Your task to perform on an android device: Show me recent news Image 0: 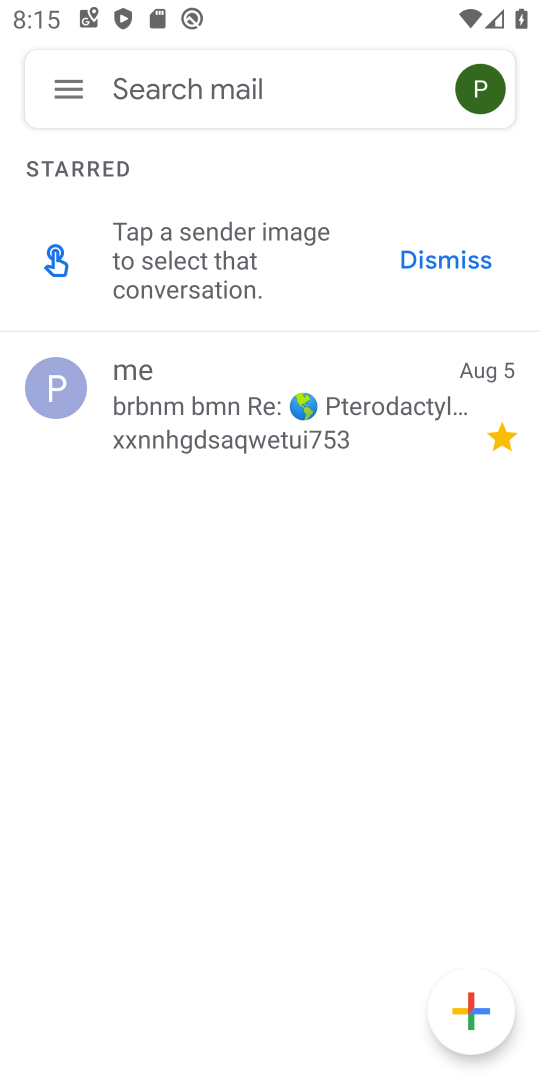
Step 0: press home button
Your task to perform on an android device: Show me recent news Image 1: 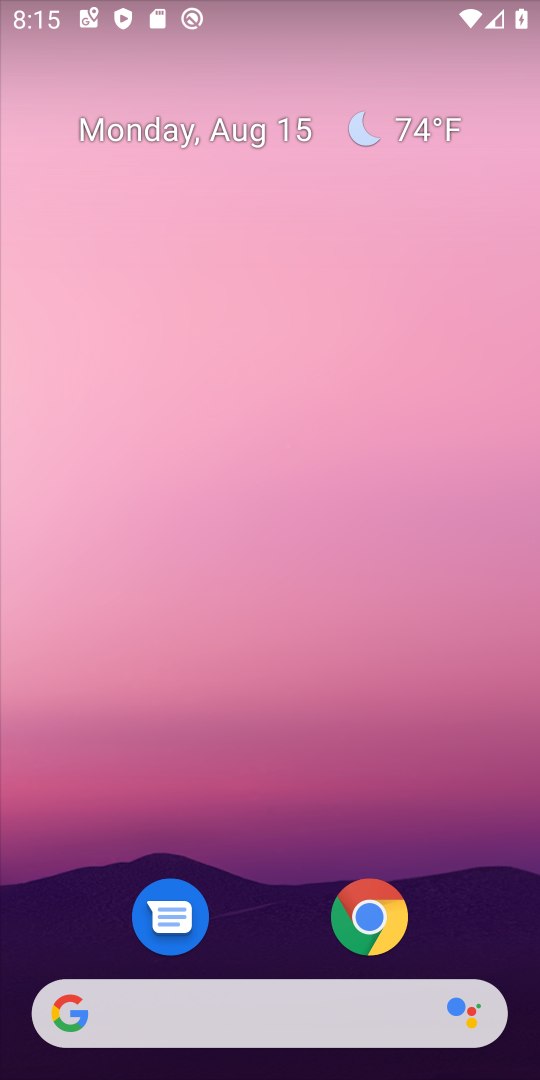
Step 1: click (354, 1009)
Your task to perform on an android device: Show me recent news Image 2: 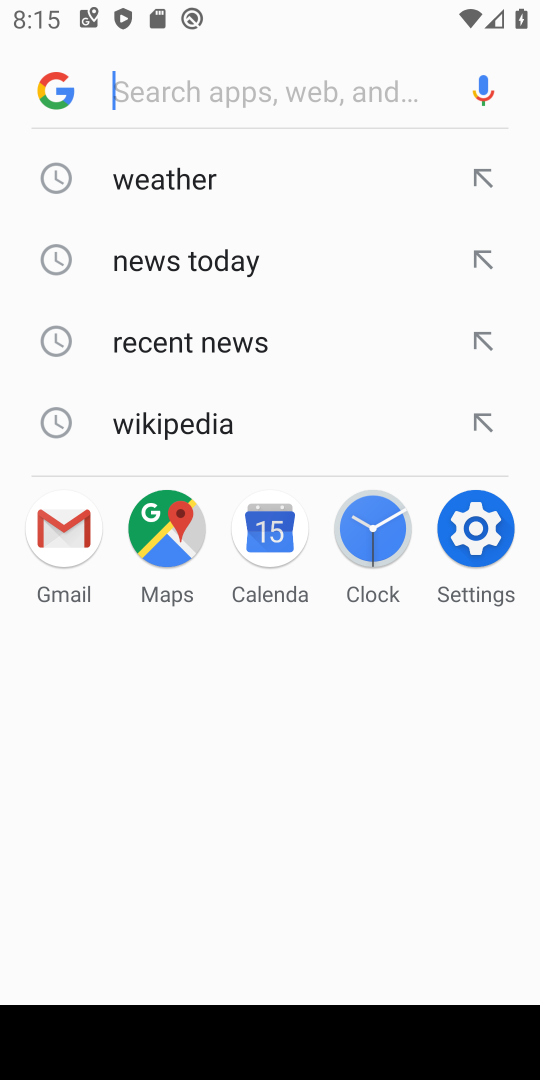
Step 2: click (190, 337)
Your task to perform on an android device: Show me recent news Image 3: 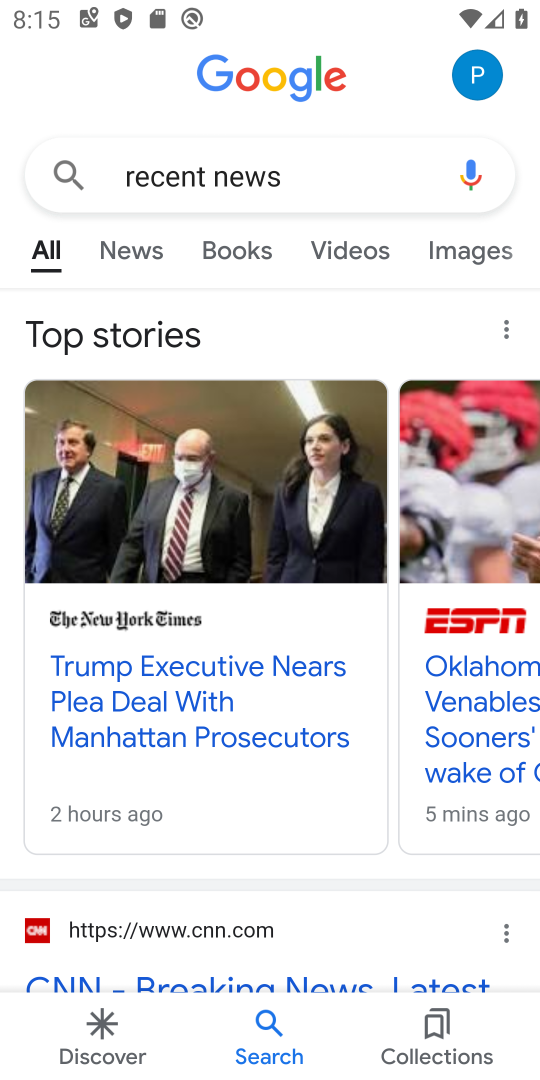
Step 3: task complete